Your task to perform on an android device: check out phone information Image 0: 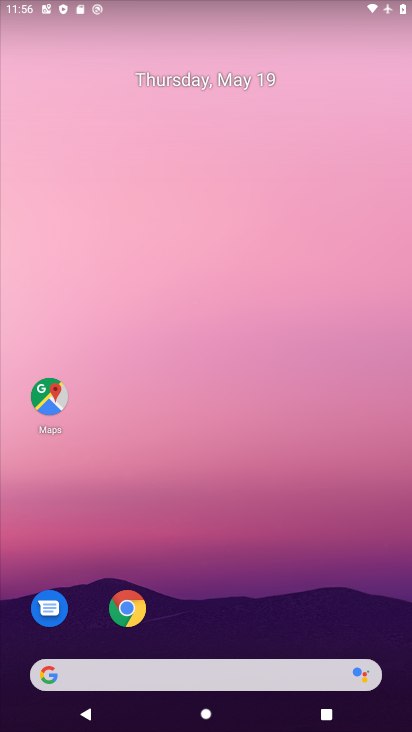
Step 0: drag from (381, 620) to (355, 103)
Your task to perform on an android device: check out phone information Image 1: 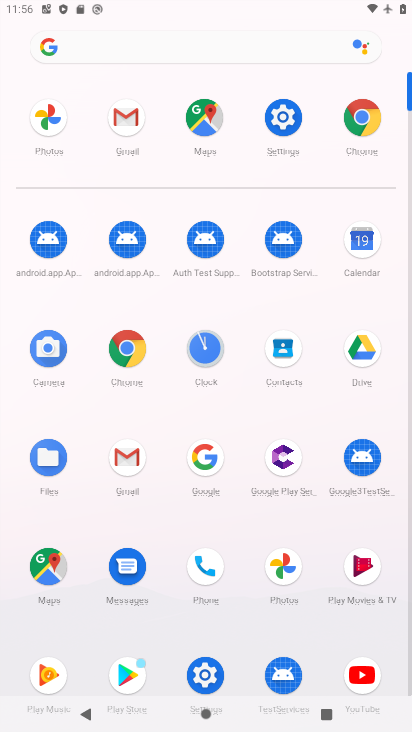
Step 1: click (210, 573)
Your task to perform on an android device: check out phone information Image 2: 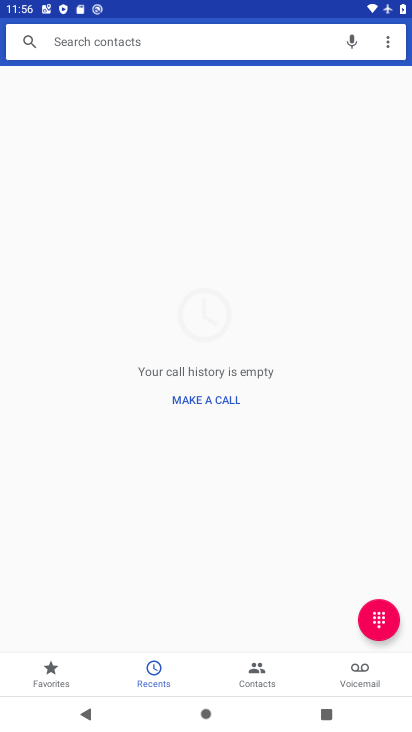
Step 2: task complete